Your task to perform on an android device: Open Wikipedia Image 0: 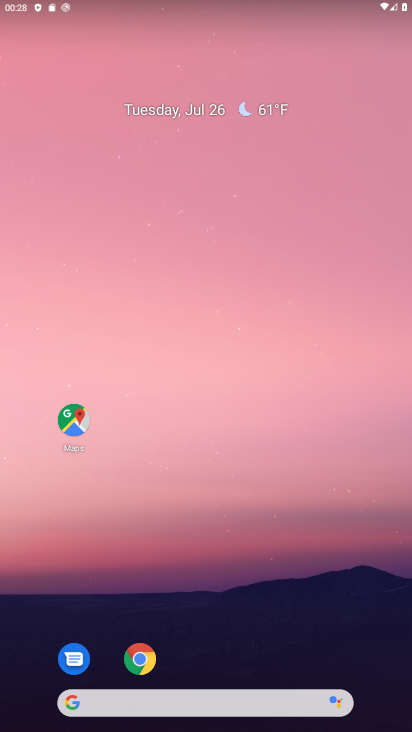
Step 0: drag from (298, 630) to (252, 67)
Your task to perform on an android device: Open Wikipedia Image 1: 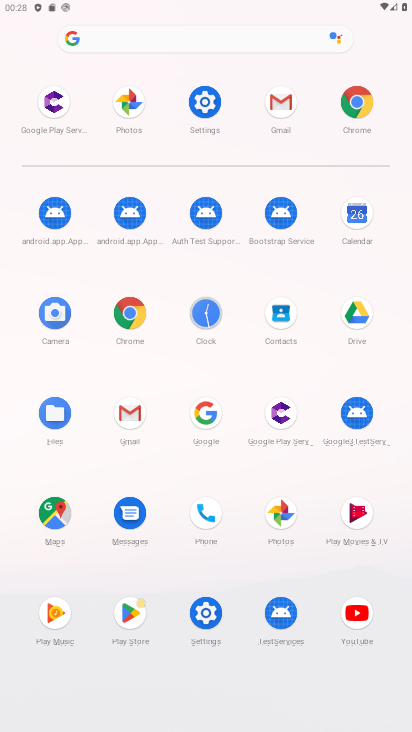
Step 1: click (358, 96)
Your task to perform on an android device: Open Wikipedia Image 2: 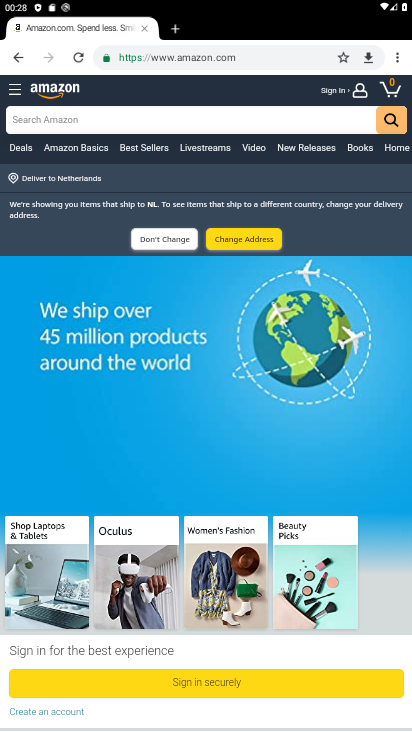
Step 2: click (251, 58)
Your task to perform on an android device: Open Wikipedia Image 3: 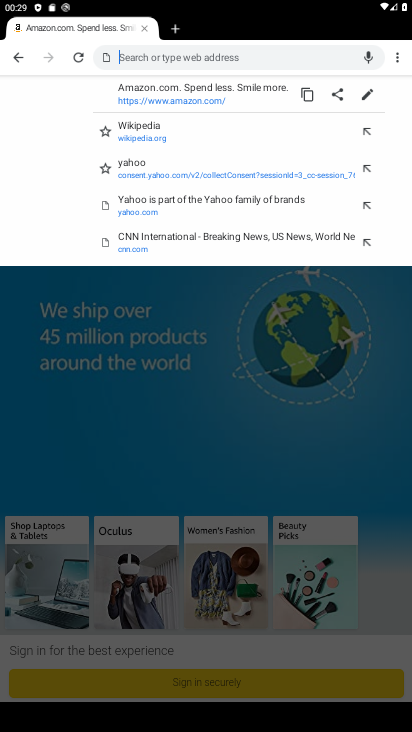
Step 3: type "wikipedia"
Your task to perform on an android device: Open Wikipedia Image 4: 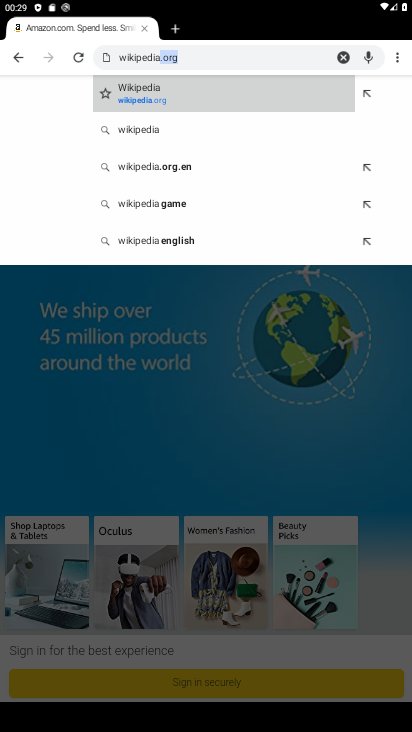
Step 4: click (129, 94)
Your task to perform on an android device: Open Wikipedia Image 5: 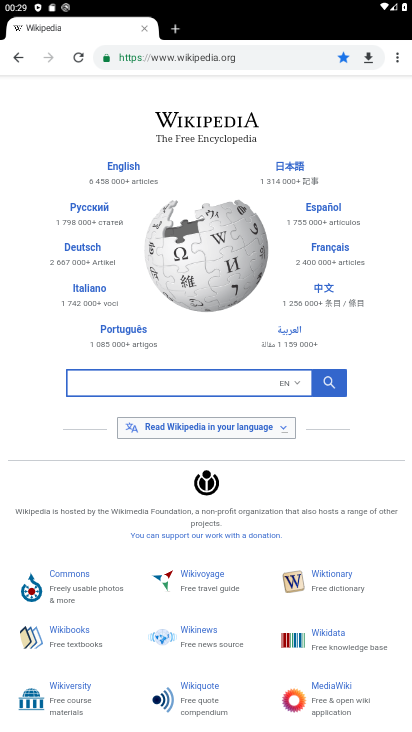
Step 5: task complete